Your task to perform on an android device: What's the weather? Image 0: 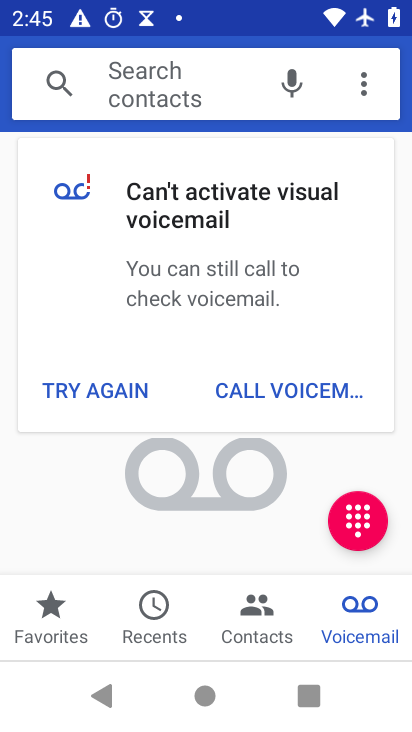
Step 0: press home button
Your task to perform on an android device: What's the weather? Image 1: 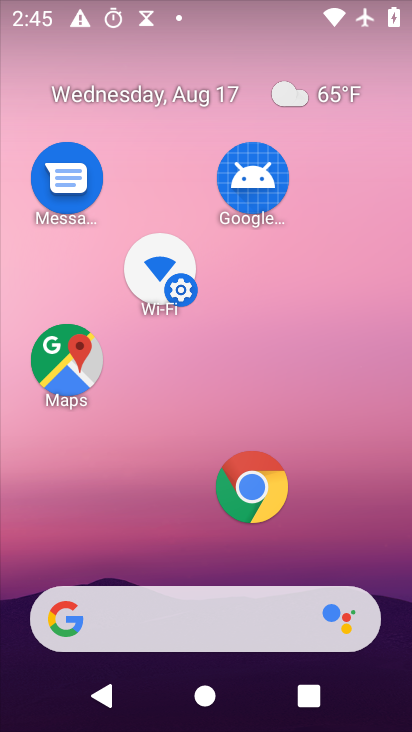
Step 1: click (63, 638)
Your task to perform on an android device: What's the weather? Image 2: 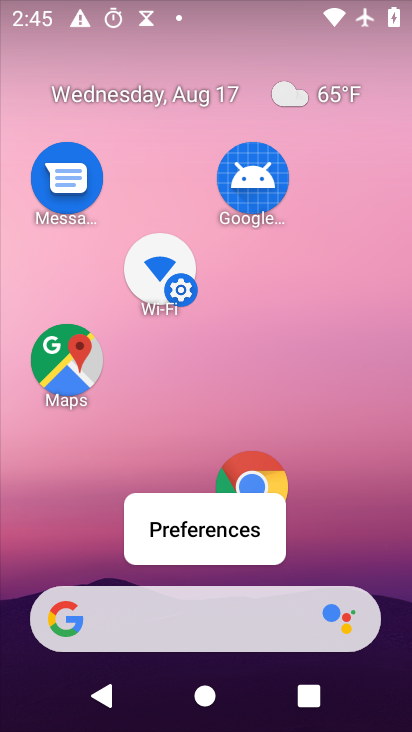
Step 2: click (63, 631)
Your task to perform on an android device: What's the weather? Image 3: 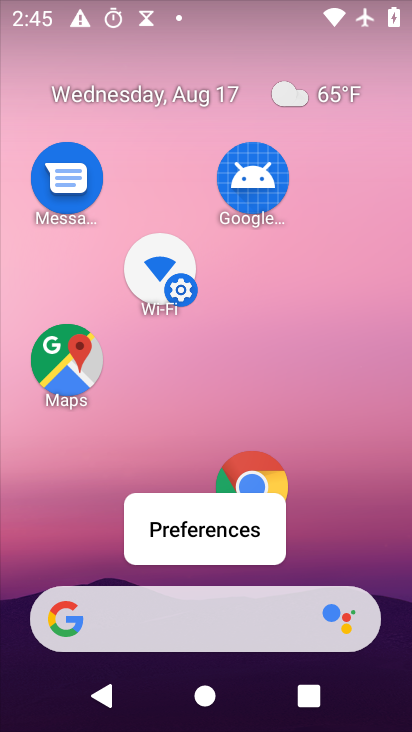
Step 3: click (63, 631)
Your task to perform on an android device: What's the weather? Image 4: 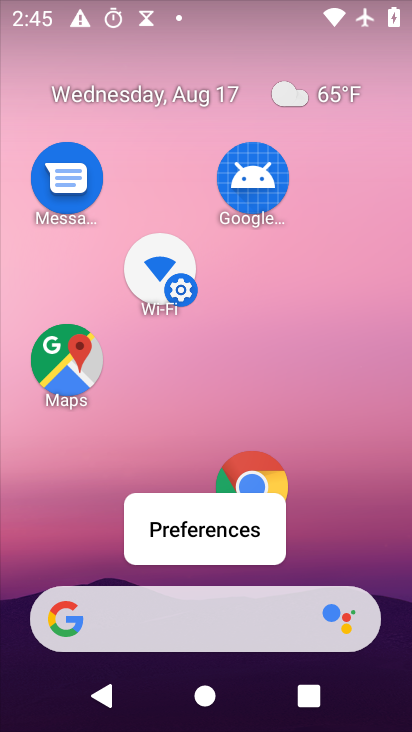
Step 4: click (63, 631)
Your task to perform on an android device: What's the weather? Image 5: 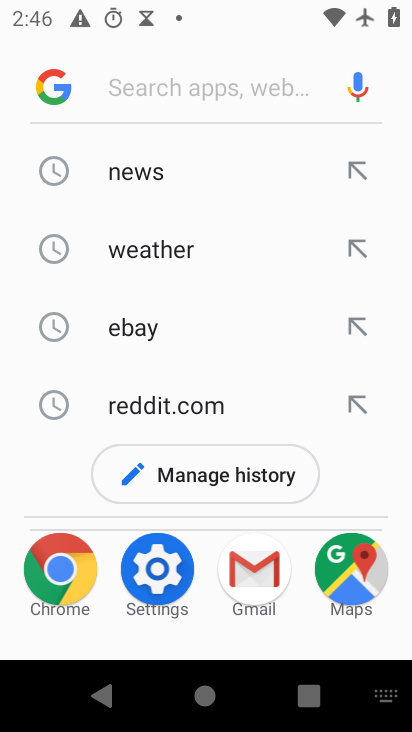
Step 5: click (118, 255)
Your task to perform on an android device: What's the weather? Image 6: 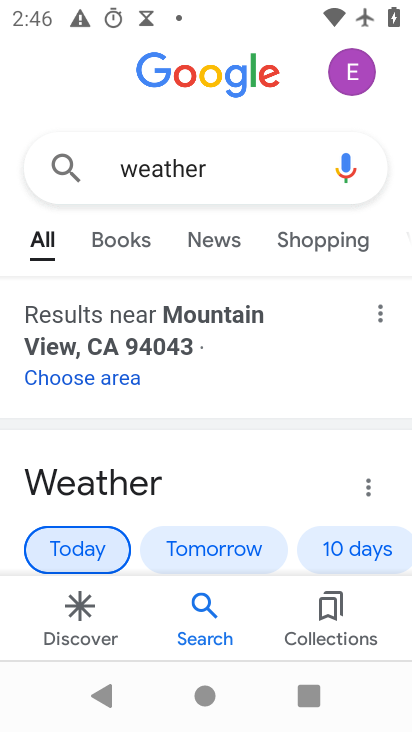
Step 6: task complete